Your task to perform on an android device: Open calendar and show me the third week of next month Image 0: 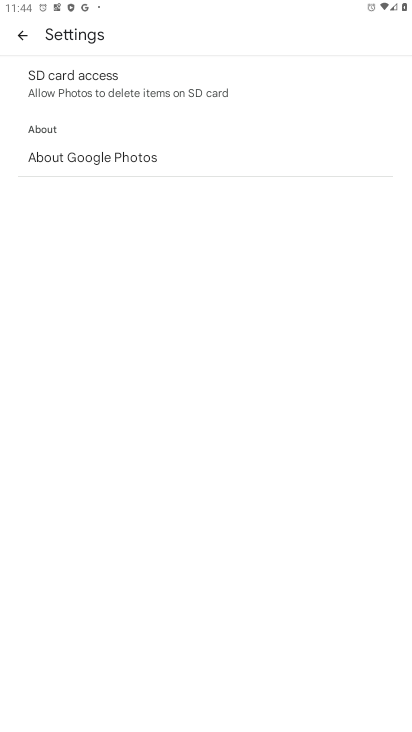
Step 0: press home button
Your task to perform on an android device: Open calendar and show me the third week of next month Image 1: 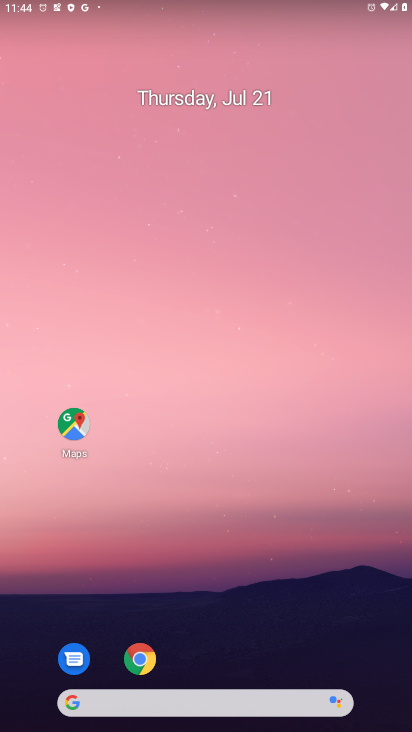
Step 1: drag from (187, 693) to (207, 79)
Your task to perform on an android device: Open calendar and show me the third week of next month Image 2: 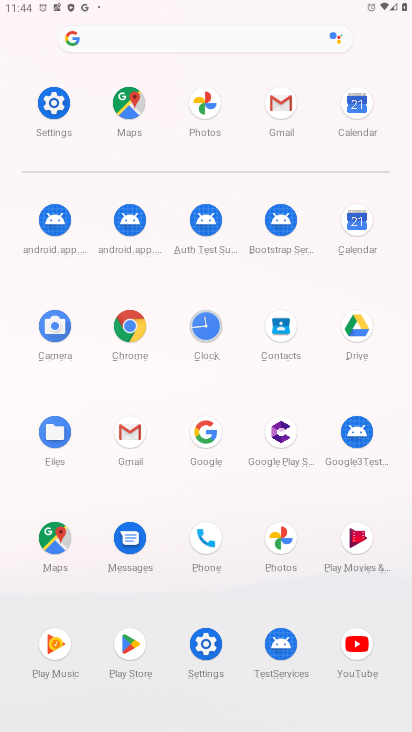
Step 2: click (356, 104)
Your task to perform on an android device: Open calendar and show me the third week of next month Image 3: 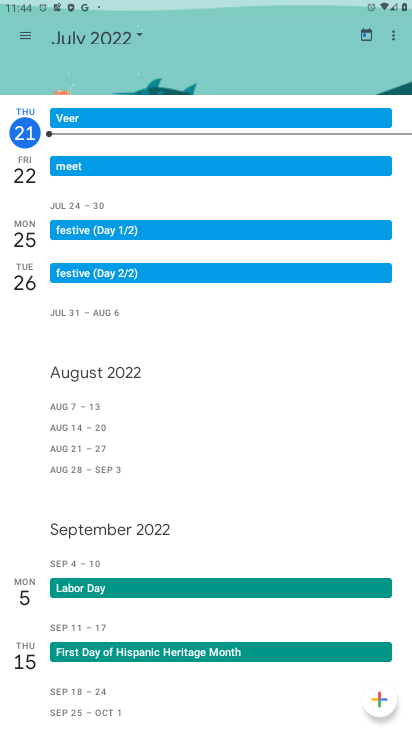
Step 3: click (367, 36)
Your task to perform on an android device: Open calendar and show me the third week of next month Image 4: 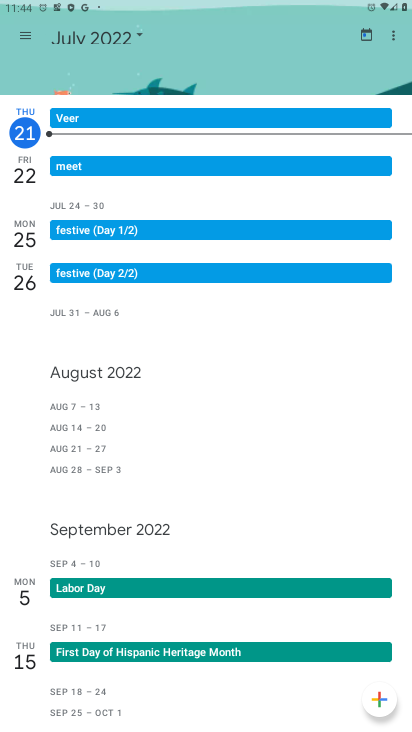
Step 4: click (139, 40)
Your task to perform on an android device: Open calendar and show me the third week of next month Image 5: 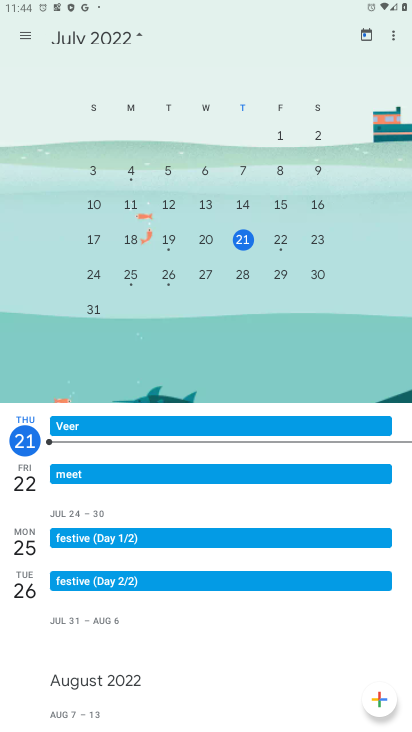
Step 5: drag from (318, 258) to (7, 229)
Your task to perform on an android device: Open calendar and show me the third week of next month Image 6: 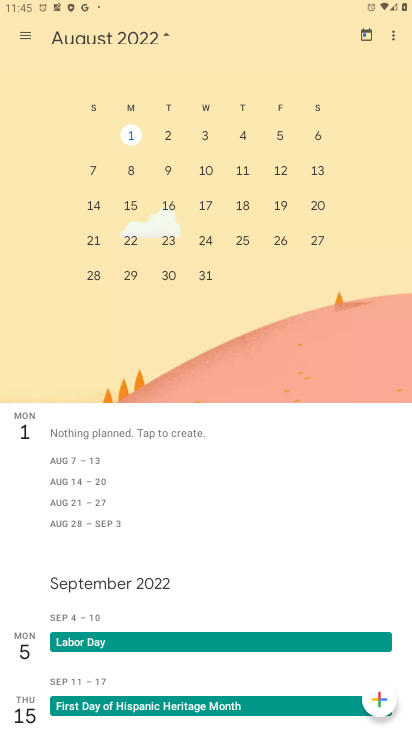
Step 6: click (133, 205)
Your task to perform on an android device: Open calendar and show me the third week of next month Image 7: 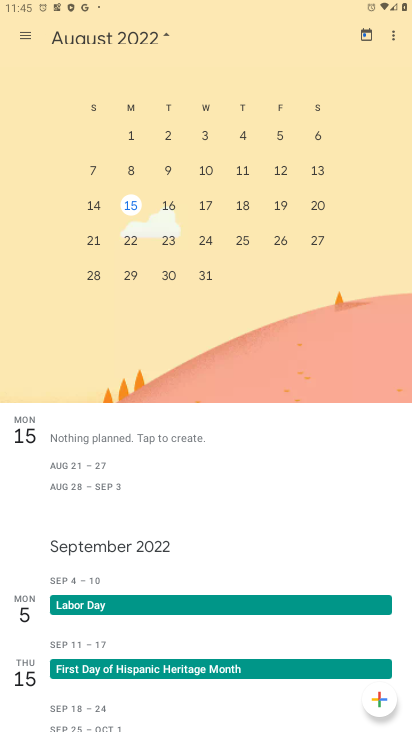
Step 7: click (23, 38)
Your task to perform on an android device: Open calendar and show me the third week of next month Image 8: 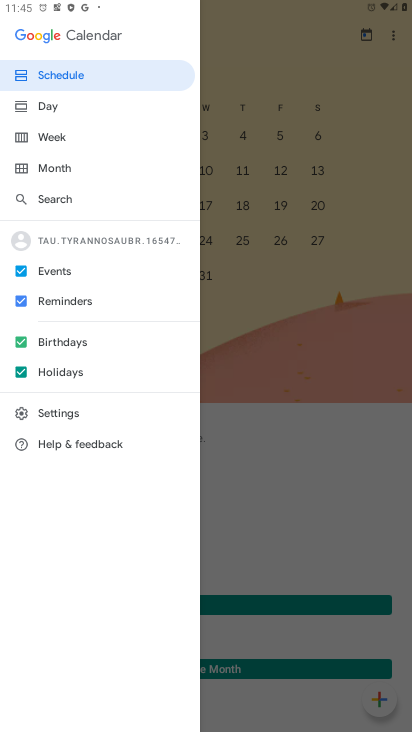
Step 8: click (53, 134)
Your task to perform on an android device: Open calendar and show me the third week of next month Image 9: 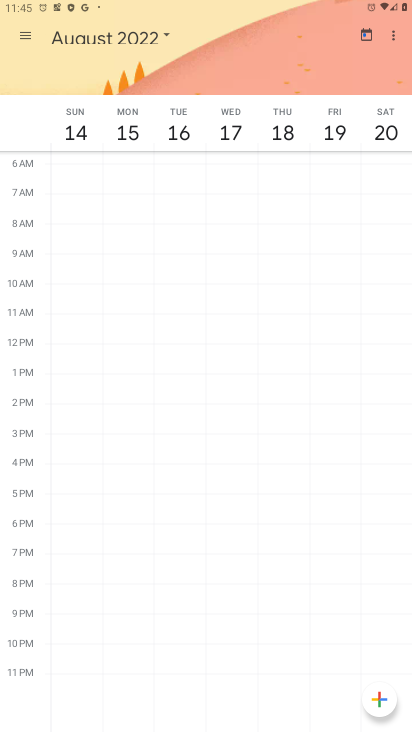
Step 9: task complete